Your task to perform on an android device: turn off translation in the chrome app Image 0: 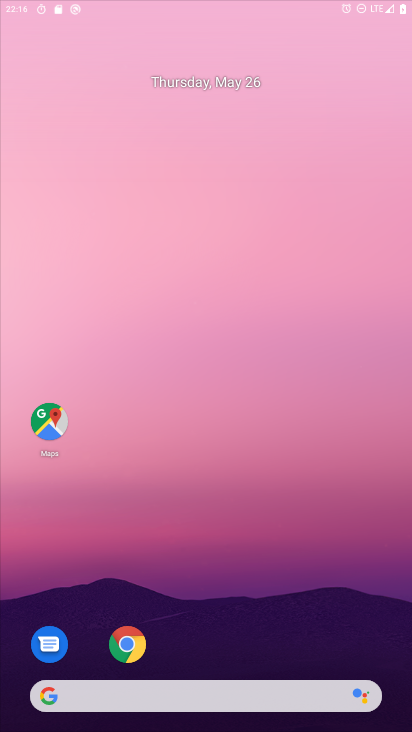
Step 0: click (269, 59)
Your task to perform on an android device: turn off translation in the chrome app Image 1: 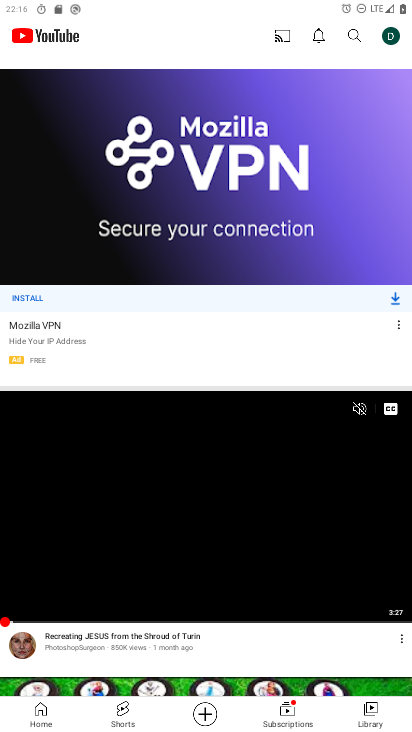
Step 1: press home button
Your task to perform on an android device: turn off translation in the chrome app Image 2: 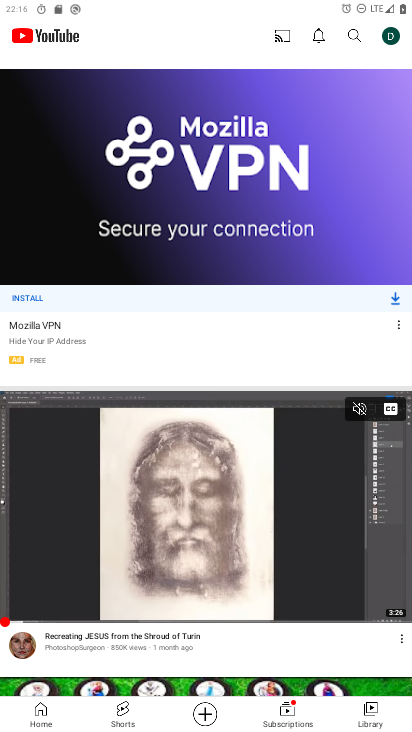
Step 2: drag from (250, 641) to (318, 5)
Your task to perform on an android device: turn off translation in the chrome app Image 3: 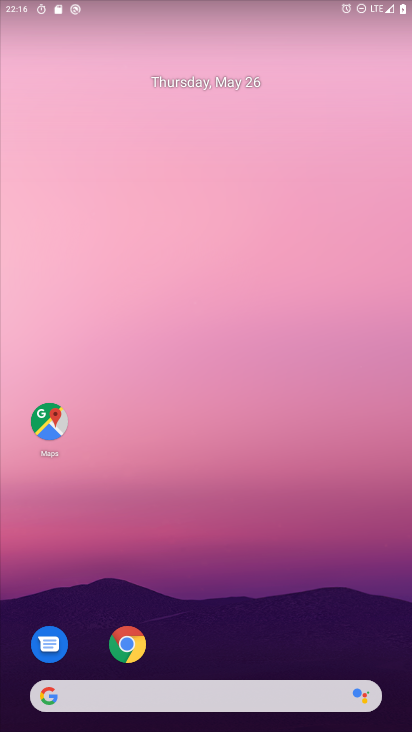
Step 3: drag from (208, 656) to (283, 162)
Your task to perform on an android device: turn off translation in the chrome app Image 4: 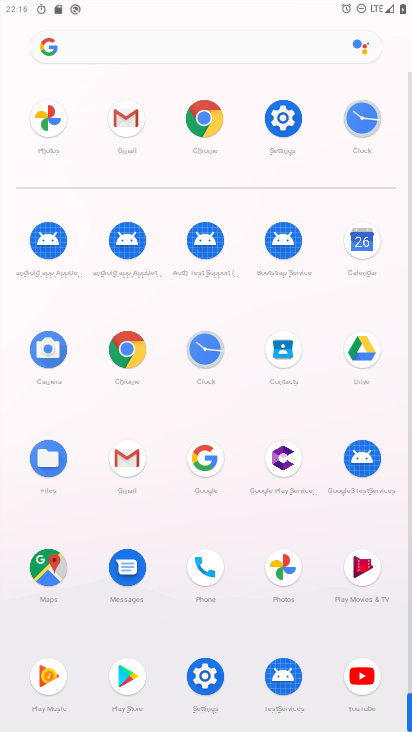
Step 4: click (129, 349)
Your task to perform on an android device: turn off translation in the chrome app Image 5: 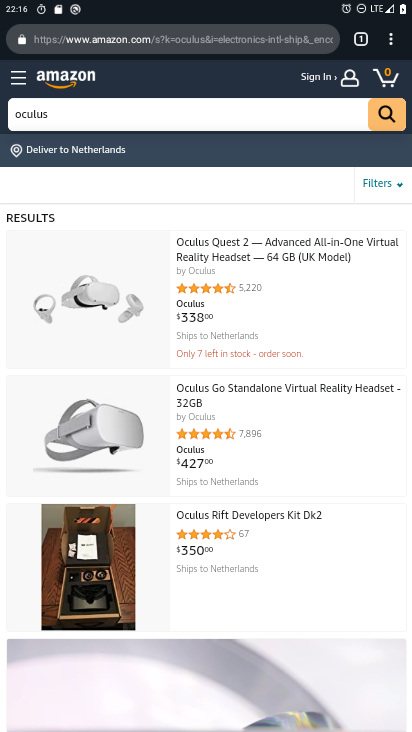
Step 5: drag from (391, 34) to (271, 441)
Your task to perform on an android device: turn off translation in the chrome app Image 6: 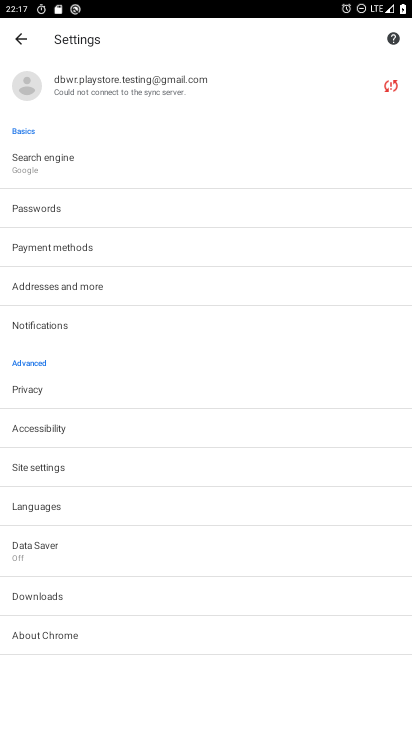
Step 6: click (60, 508)
Your task to perform on an android device: turn off translation in the chrome app Image 7: 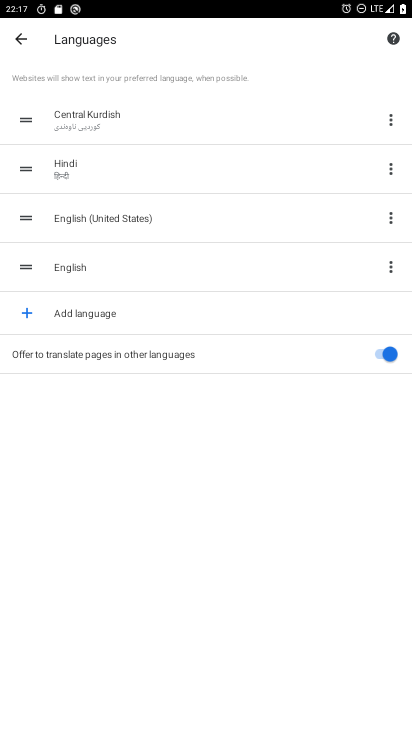
Step 7: click (385, 357)
Your task to perform on an android device: turn off translation in the chrome app Image 8: 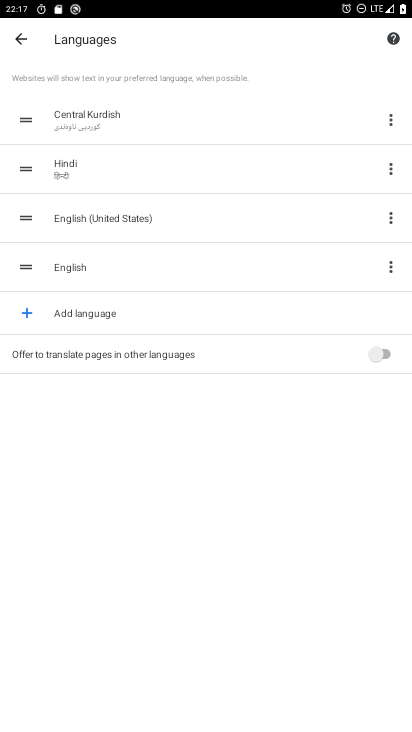
Step 8: task complete